Your task to perform on an android device: Open the phone app and click the voicemail tab. Image 0: 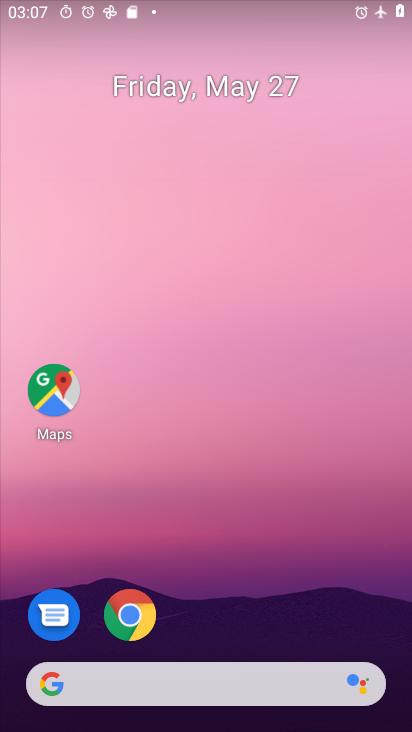
Step 0: drag from (326, 623) to (347, 205)
Your task to perform on an android device: Open the phone app and click the voicemail tab. Image 1: 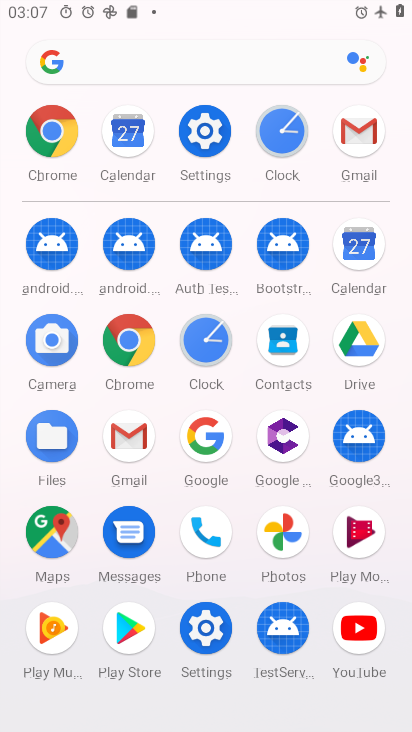
Step 1: click (363, 531)
Your task to perform on an android device: Open the phone app and click the voicemail tab. Image 2: 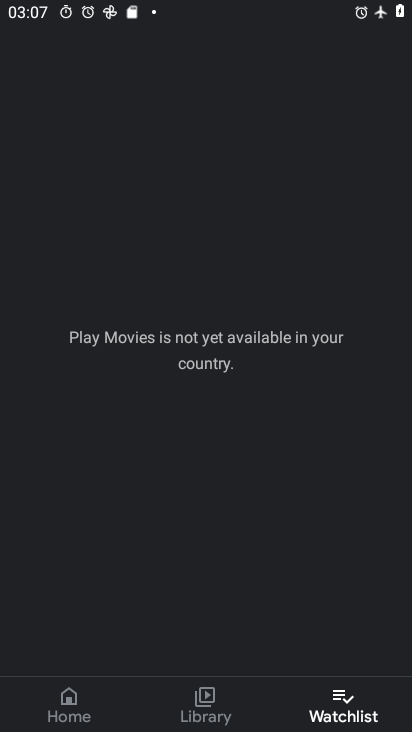
Step 2: task complete